Your task to perform on an android device: Look up the best selling patio furniture on Home Depot Image 0: 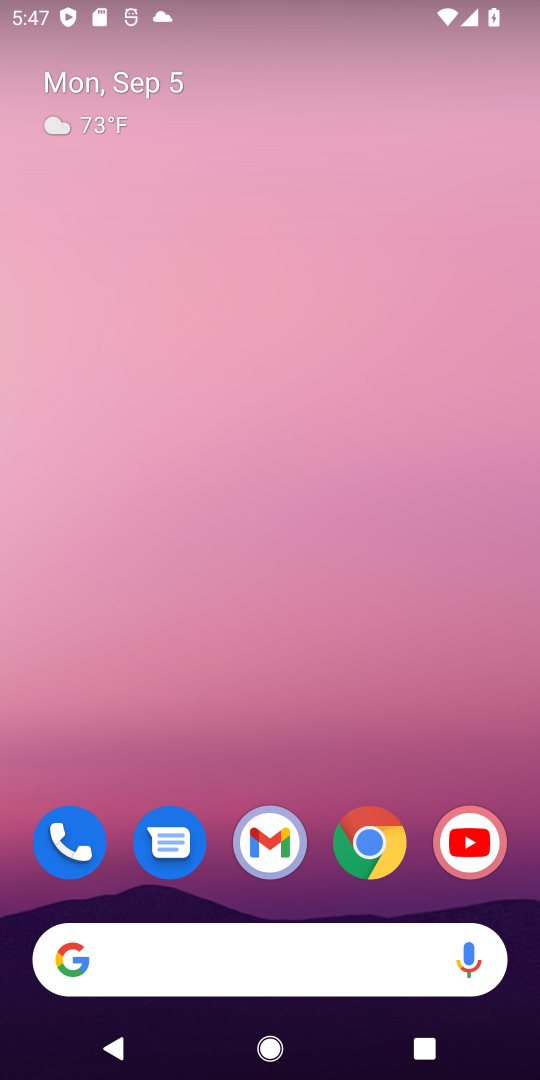
Step 0: click (370, 843)
Your task to perform on an android device: Look up the best selling patio furniture on Home Depot Image 1: 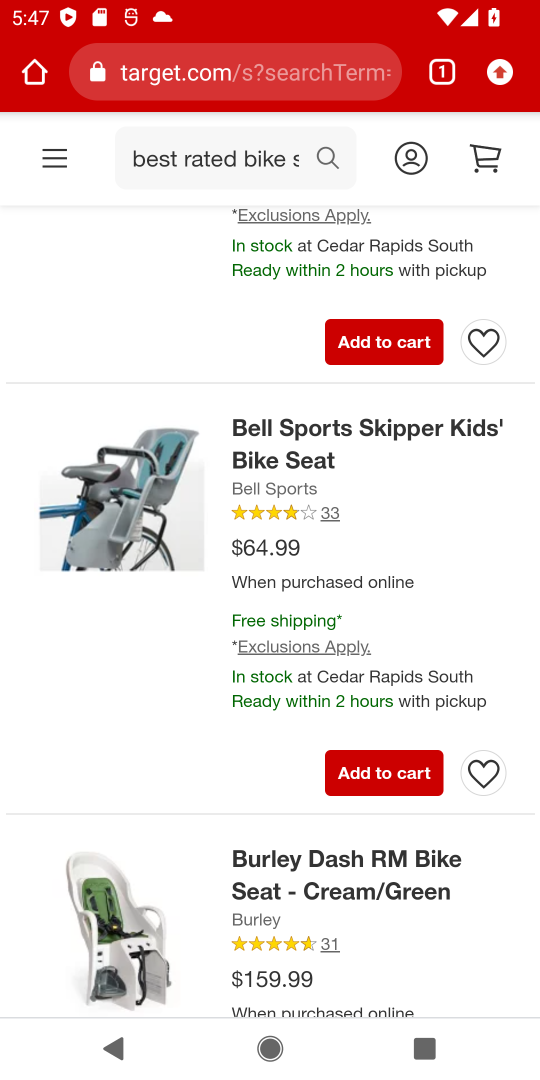
Step 1: click (330, 74)
Your task to perform on an android device: Look up the best selling patio furniture on Home Depot Image 2: 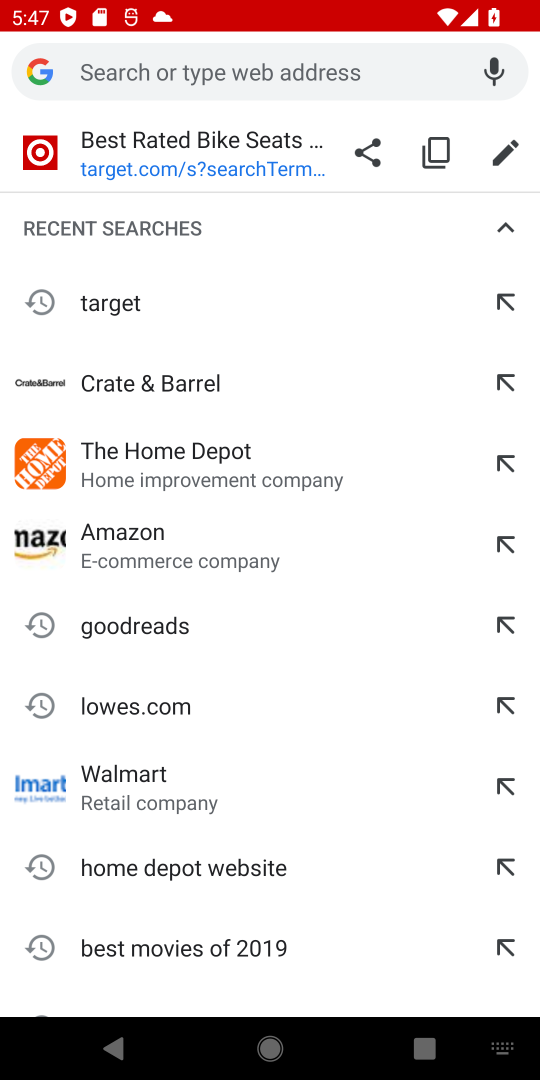
Step 2: type "Home Depot"
Your task to perform on an android device: Look up the best selling patio furniture on Home Depot Image 3: 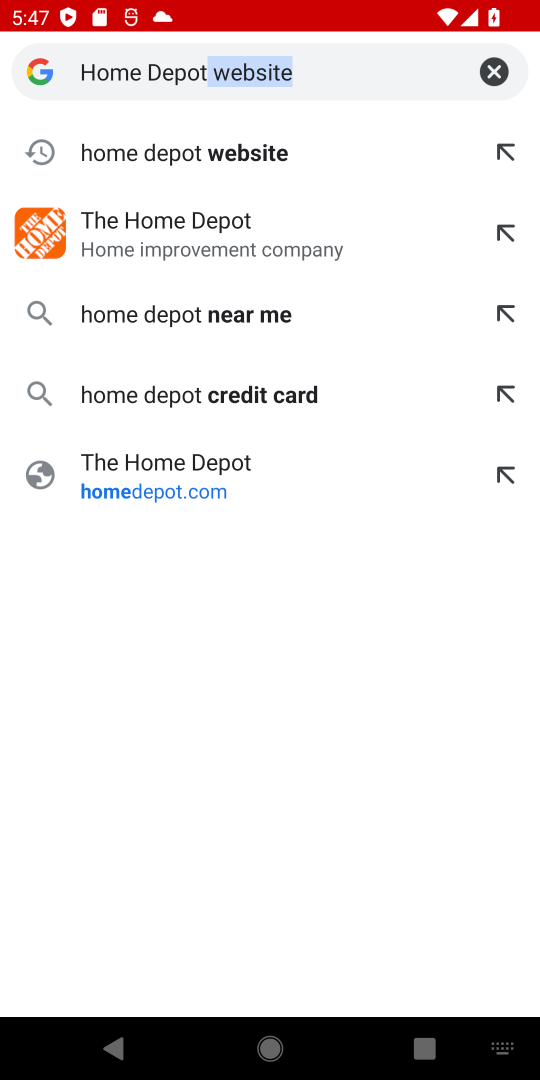
Step 3: click (127, 222)
Your task to perform on an android device: Look up the best selling patio furniture on Home Depot Image 4: 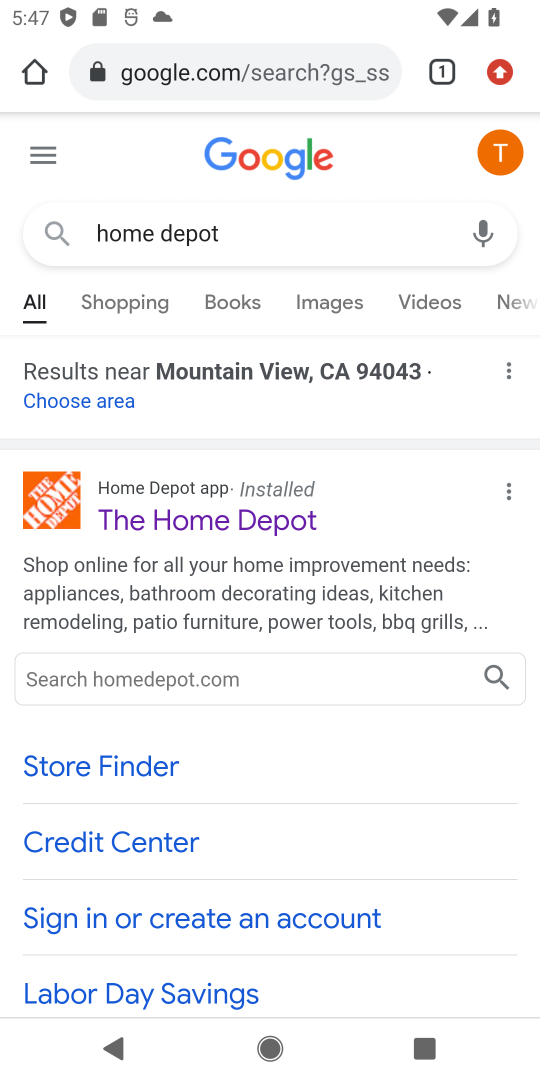
Step 4: click (205, 500)
Your task to perform on an android device: Look up the best selling patio furniture on Home Depot Image 5: 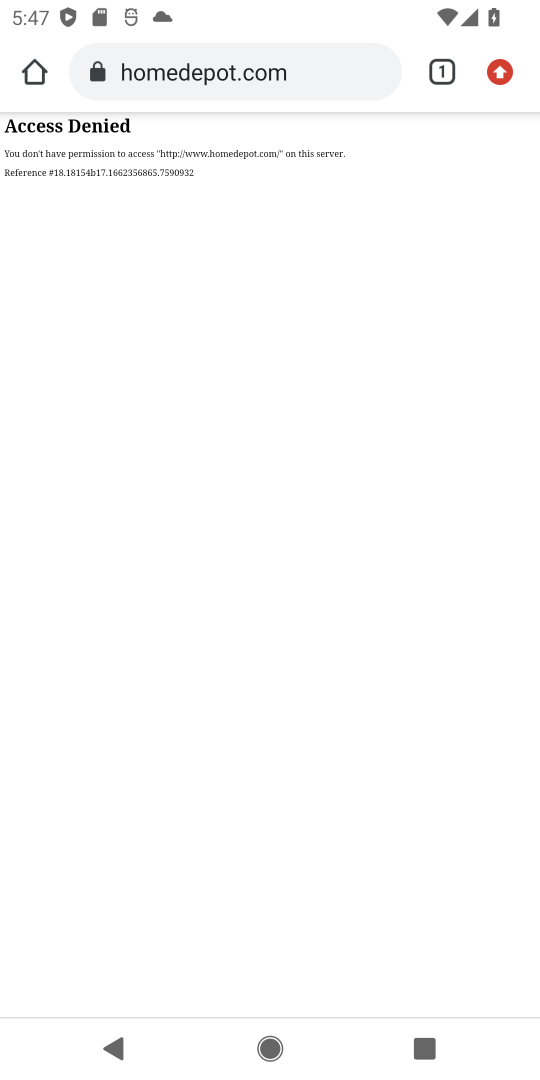
Step 5: task complete